Your task to perform on an android device: Play the last video I watched on Youtube Image 0: 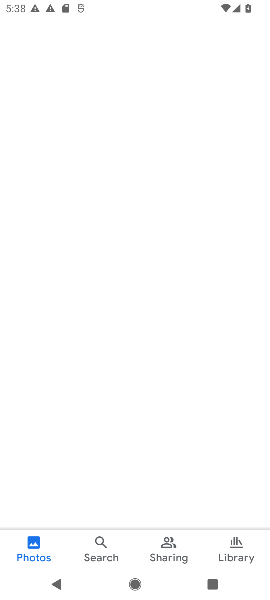
Step 0: press home button
Your task to perform on an android device: Play the last video I watched on Youtube Image 1: 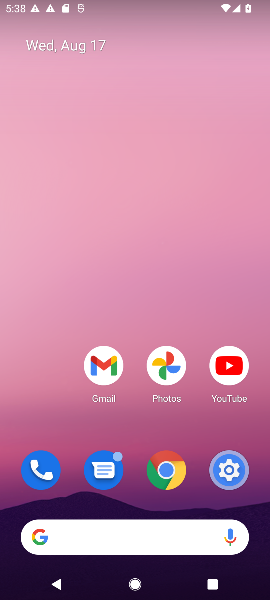
Step 1: click (228, 373)
Your task to perform on an android device: Play the last video I watched on Youtube Image 2: 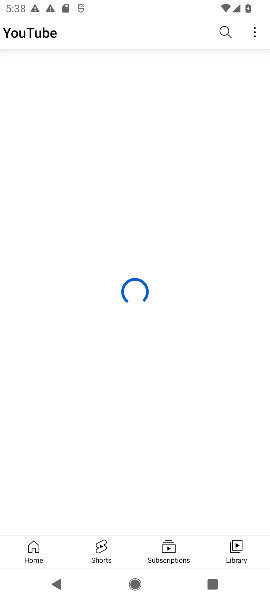
Step 2: click (224, 544)
Your task to perform on an android device: Play the last video I watched on Youtube Image 3: 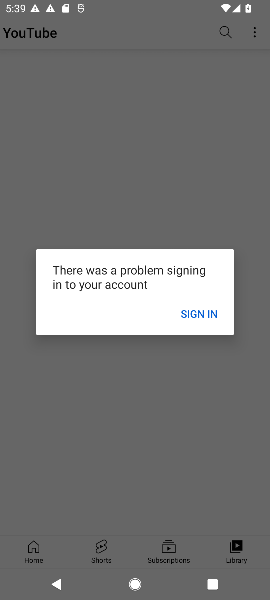
Step 3: click (201, 308)
Your task to perform on an android device: Play the last video I watched on Youtube Image 4: 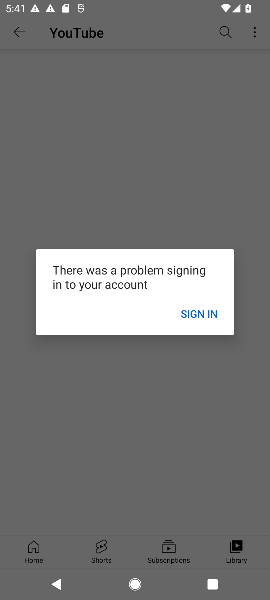
Step 4: task complete